Your task to perform on an android device: turn on wifi Image 0: 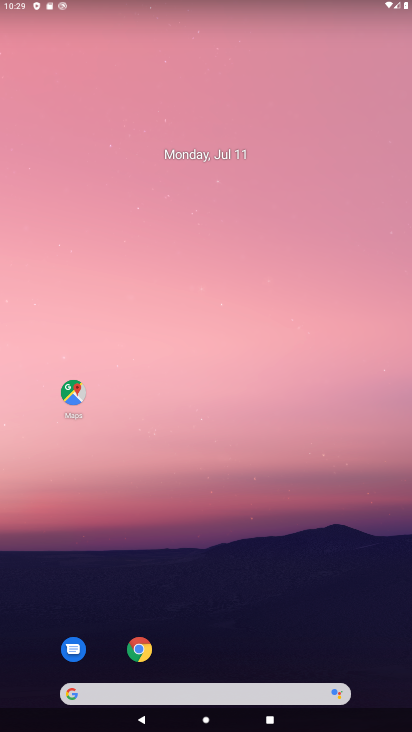
Step 0: drag from (204, 691) to (296, 98)
Your task to perform on an android device: turn on wifi Image 1: 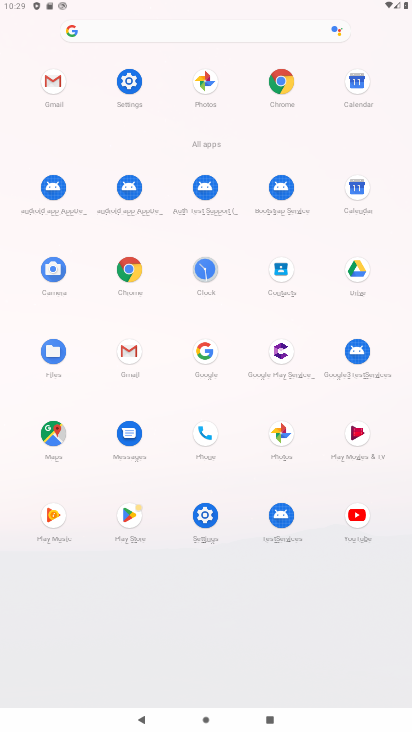
Step 1: click (130, 80)
Your task to perform on an android device: turn on wifi Image 2: 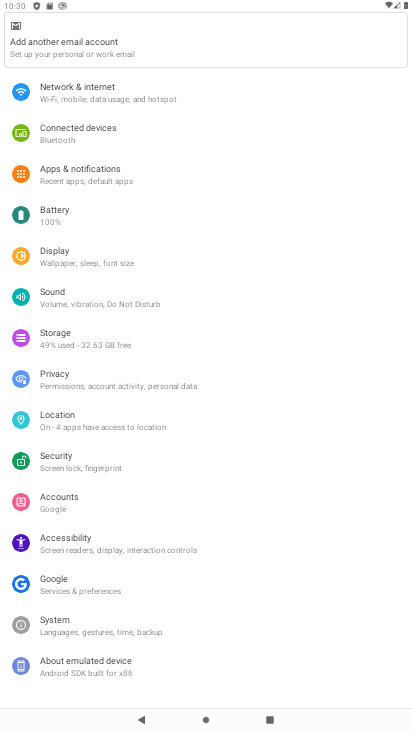
Step 2: click (121, 103)
Your task to perform on an android device: turn on wifi Image 3: 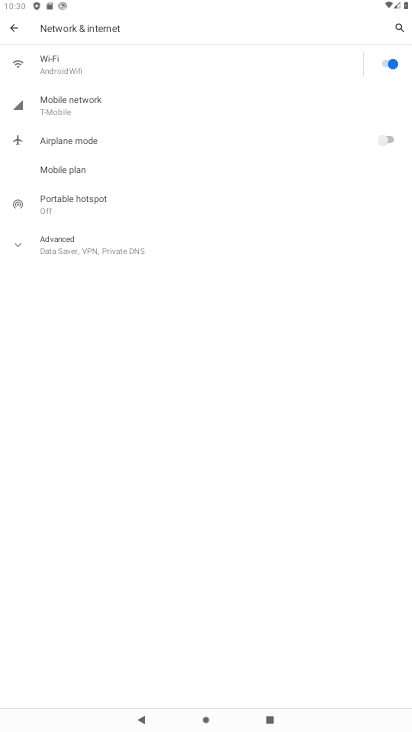
Step 3: task complete